Your task to perform on an android device: Go to settings Image 0: 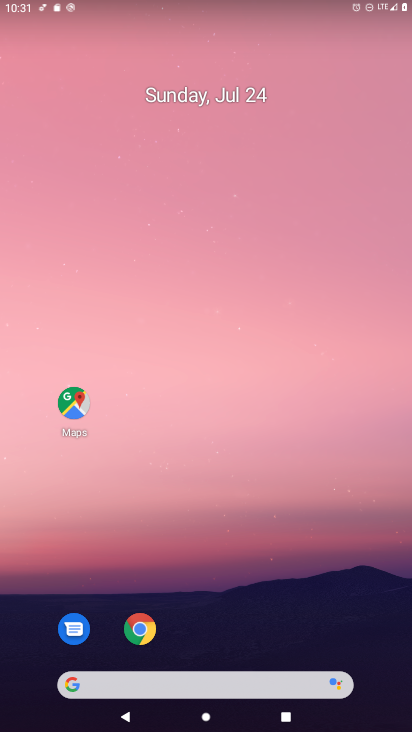
Step 0: drag from (302, 606) to (159, 18)
Your task to perform on an android device: Go to settings Image 1: 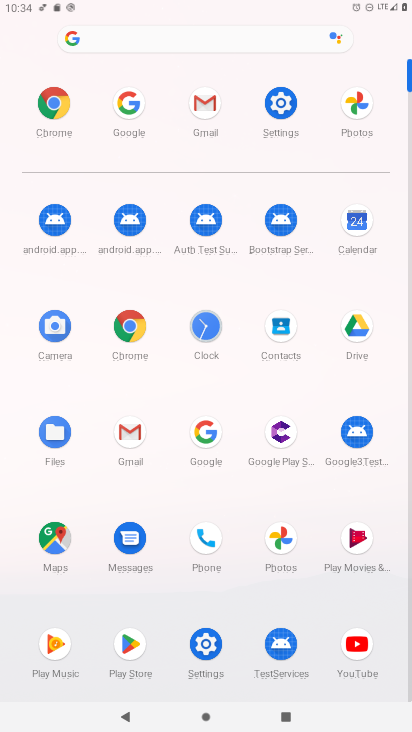
Step 1: click (199, 654)
Your task to perform on an android device: Go to settings Image 2: 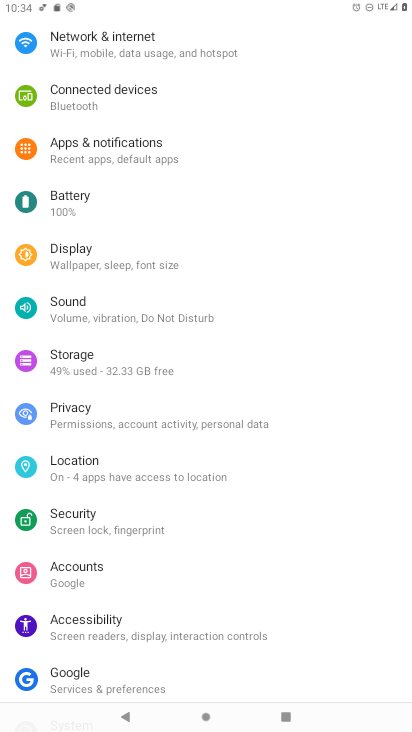
Step 2: task complete